Your task to perform on an android device: set default search engine in the chrome app Image 0: 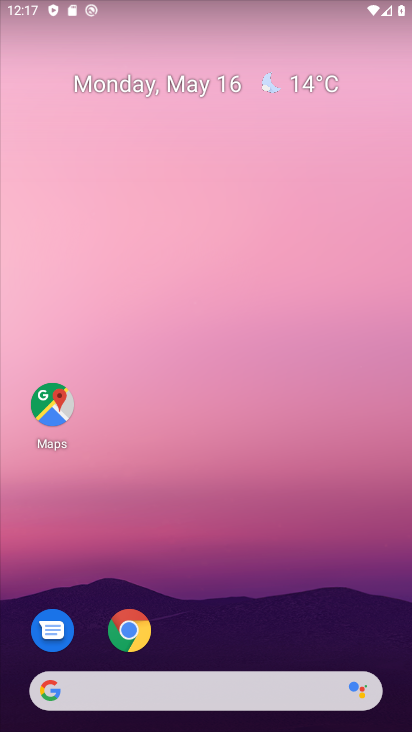
Step 0: click (145, 625)
Your task to perform on an android device: set default search engine in the chrome app Image 1: 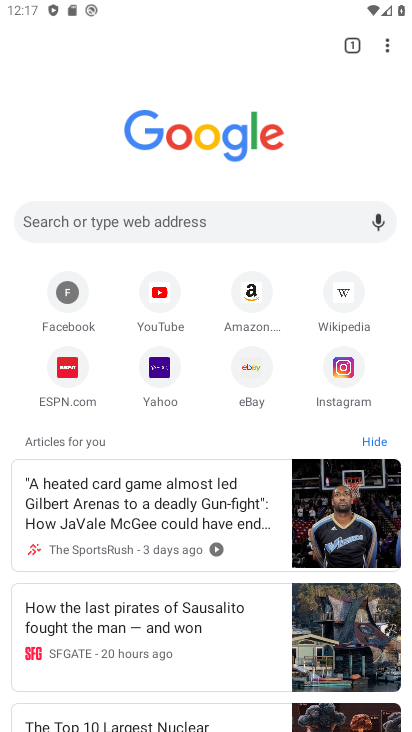
Step 1: click (388, 39)
Your task to perform on an android device: set default search engine in the chrome app Image 2: 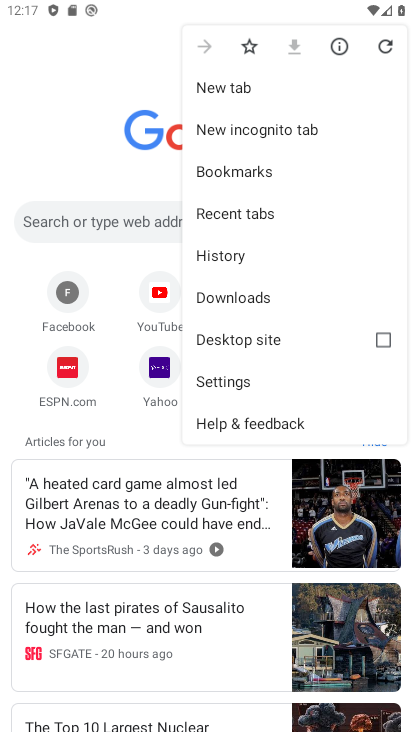
Step 2: click (250, 377)
Your task to perform on an android device: set default search engine in the chrome app Image 3: 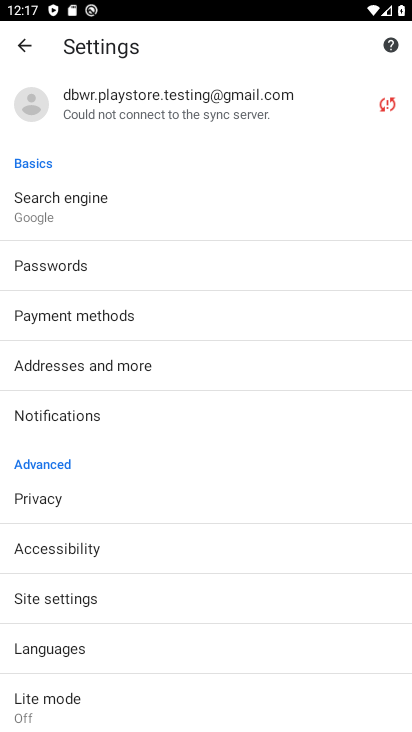
Step 3: click (141, 213)
Your task to perform on an android device: set default search engine in the chrome app Image 4: 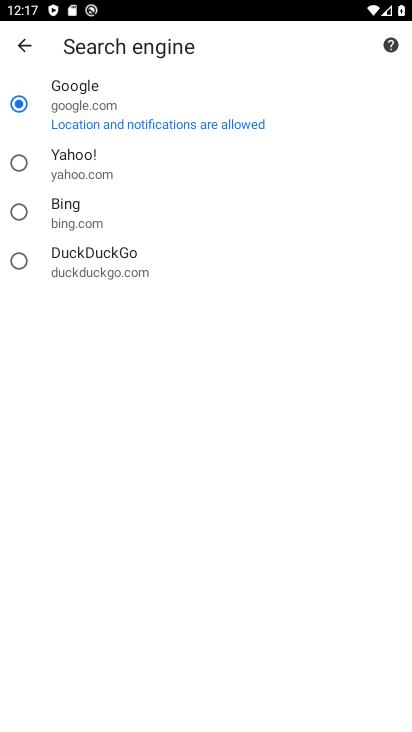
Step 4: click (74, 213)
Your task to perform on an android device: set default search engine in the chrome app Image 5: 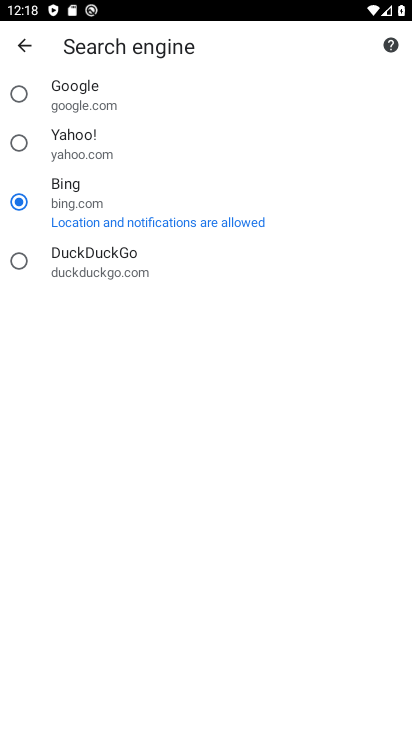
Step 5: task complete